Your task to perform on an android device: turn off priority inbox in the gmail app Image 0: 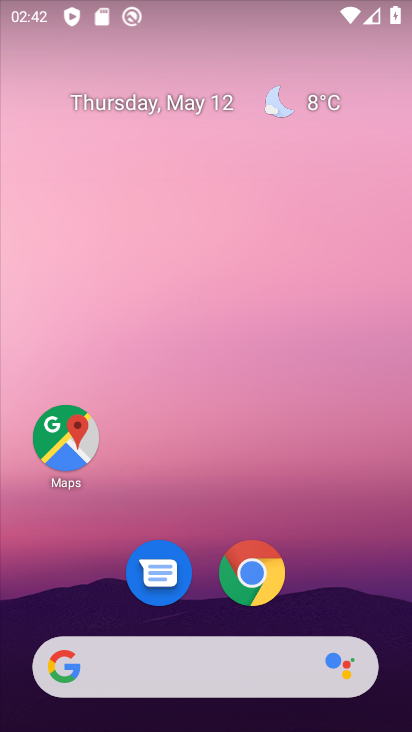
Step 0: drag from (343, 590) to (338, 157)
Your task to perform on an android device: turn off priority inbox in the gmail app Image 1: 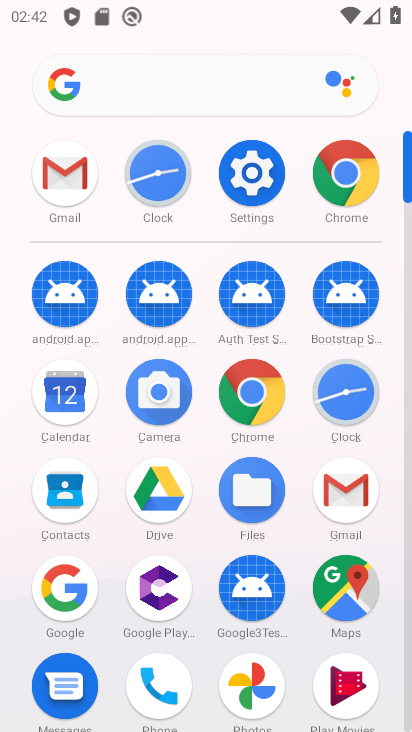
Step 1: click (338, 482)
Your task to perform on an android device: turn off priority inbox in the gmail app Image 2: 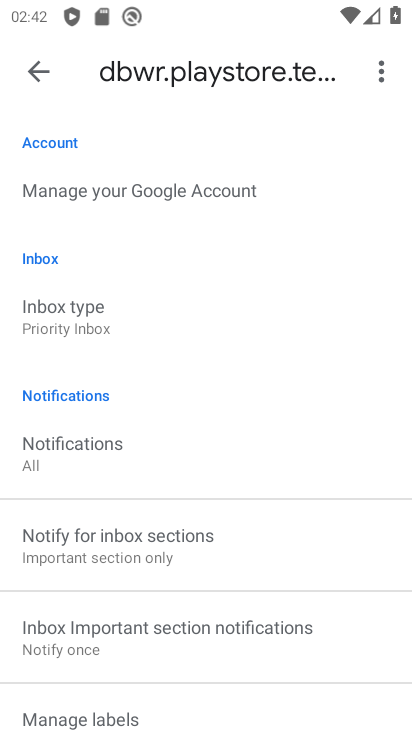
Step 2: click (89, 324)
Your task to perform on an android device: turn off priority inbox in the gmail app Image 3: 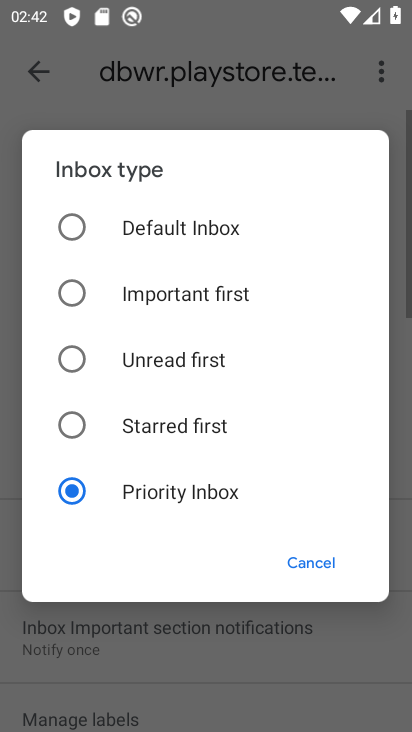
Step 3: click (211, 232)
Your task to perform on an android device: turn off priority inbox in the gmail app Image 4: 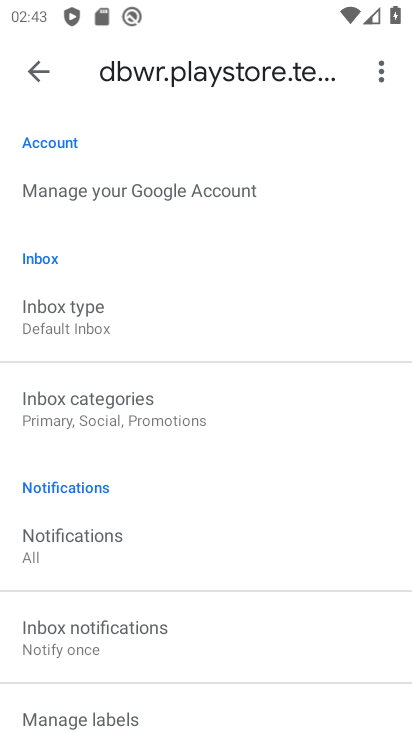
Step 4: task complete